Your task to perform on an android device: add a contact Image 0: 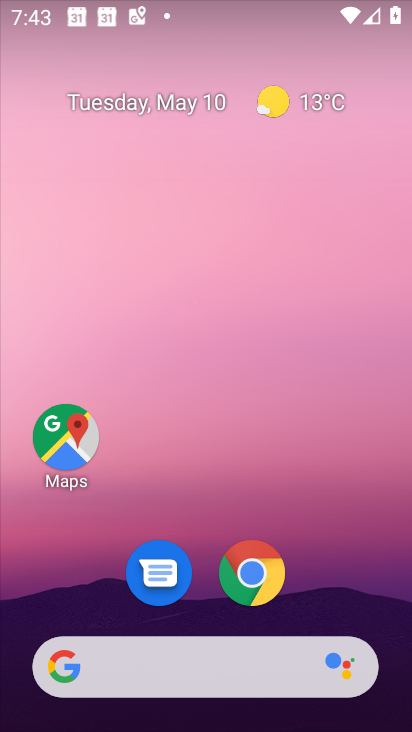
Step 0: drag from (384, 635) to (360, 10)
Your task to perform on an android device: add a contact Image 1: 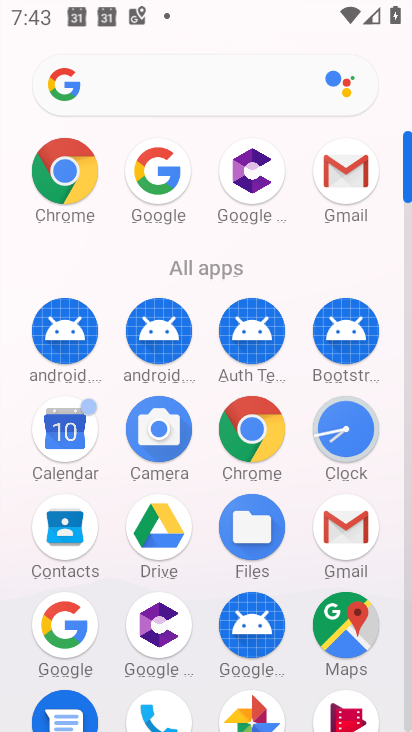
Step 1: click (62, 536)
Your task to perform on an android device: add a contact Image 2: 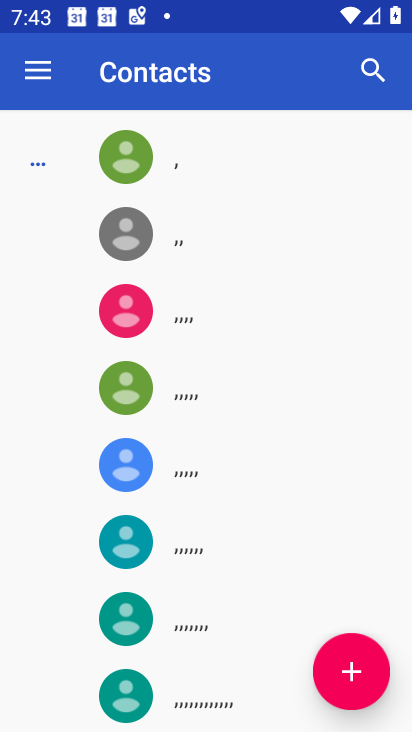
Step 2: click (356, 674)
Your task to perform on an android device: add a contact Image 3: 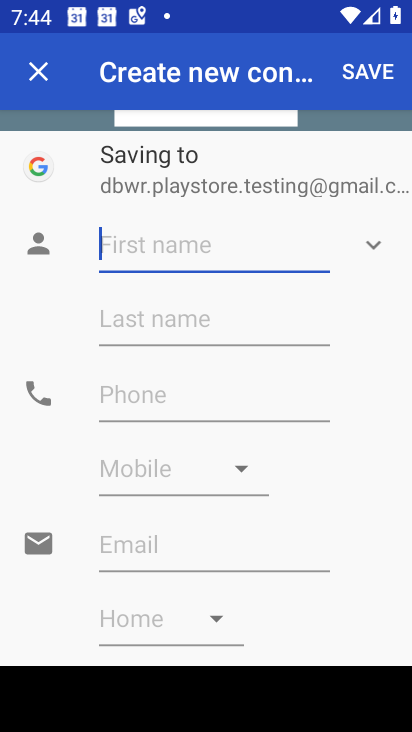
Step 3: click (137, 258)
Your task to perform on an android device: add a contact Image 4: 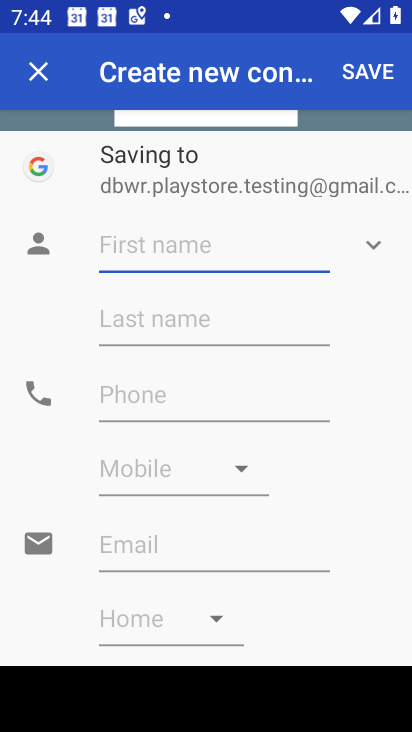
Step 4: type "chilly"
Your task to perform on an android device: add a contact Image 5: 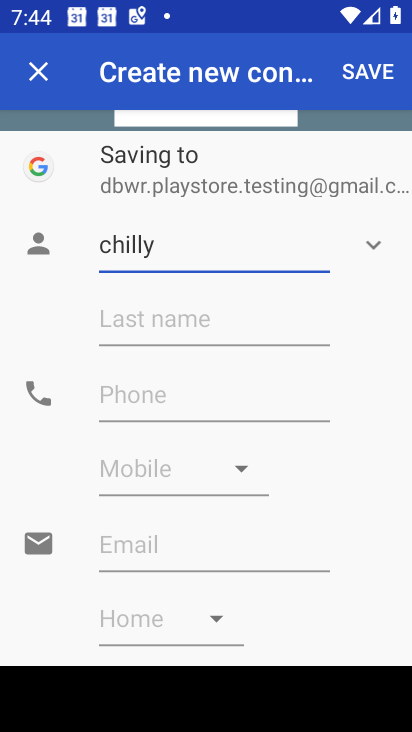
Step 5: click (115, 402)
Your task to perform on an android device: add a contact Image 6: 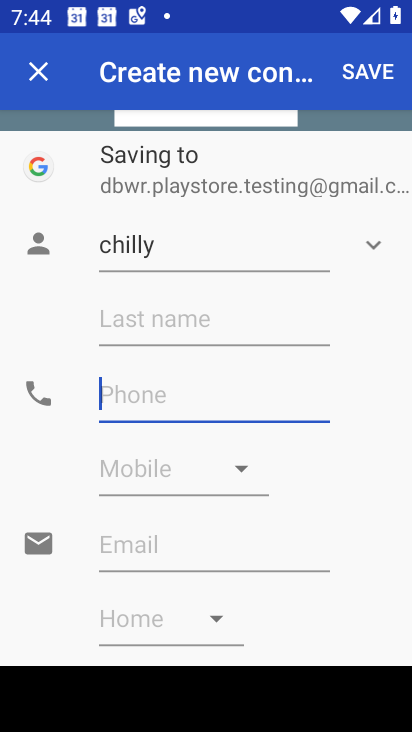
Step 6: type "98765567"
Your task to perform on an android device: add a contact Image 7: 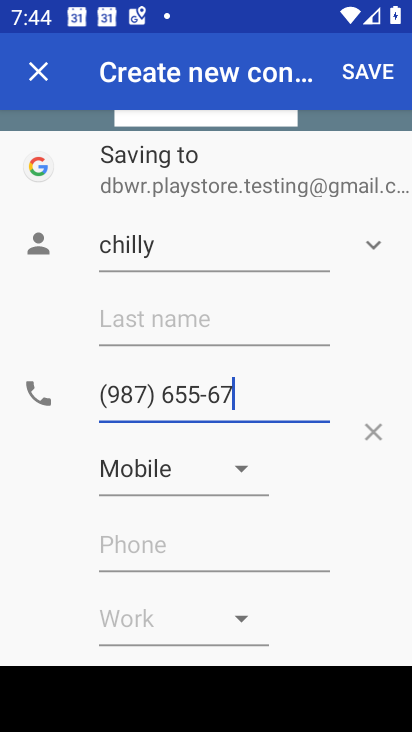
Step 7: click (359, 81)
Your task to perform on an android device: add a contact Image 8: 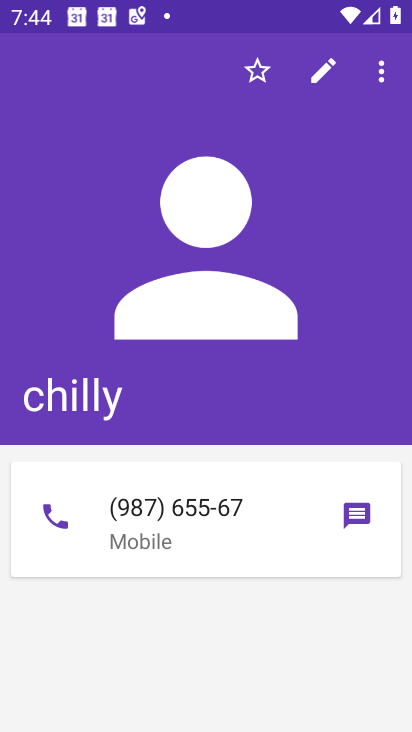
Step 8: task complete